Your task to perform on an android device: Open Google Chrome Image 0: 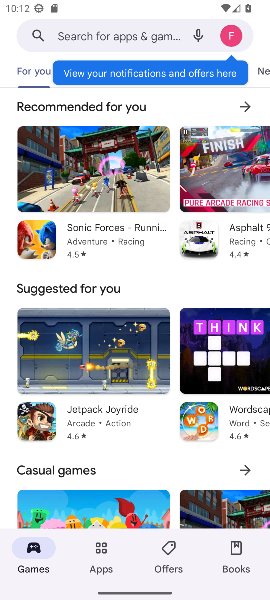
Step 0: press home button
Your task to perform on an android device: Open Google Chrome Image 1: 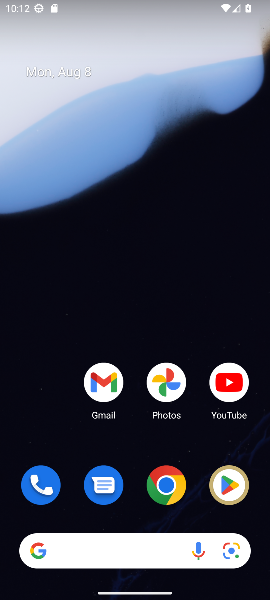
Step 1: drag from (186, 503) to (192, 61)
Your task to perform on an android device: Open Google Chrome Image 2: 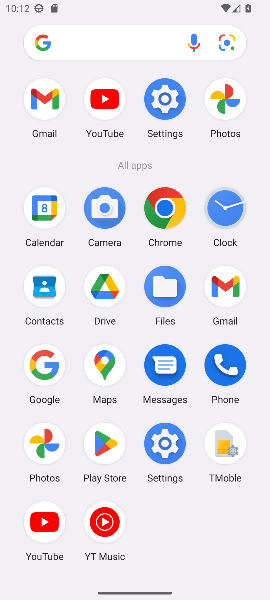
Step 2: click (178, 225)
Your task to perform on an android device: Open Google Chrome Image 3: 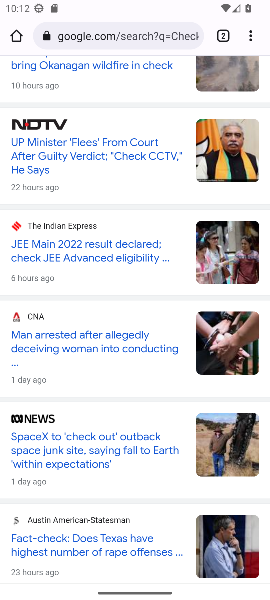
Step 3: task complete